Your task to perform on an android device: What's the weather going to be tomorrow? Image 0: 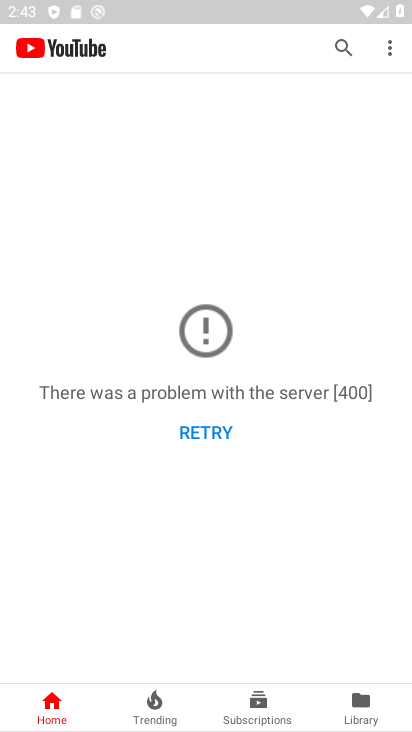
Step 0: press home button
Your task to perform on an android device: What's the weather going to be tomorrow? Image 1: 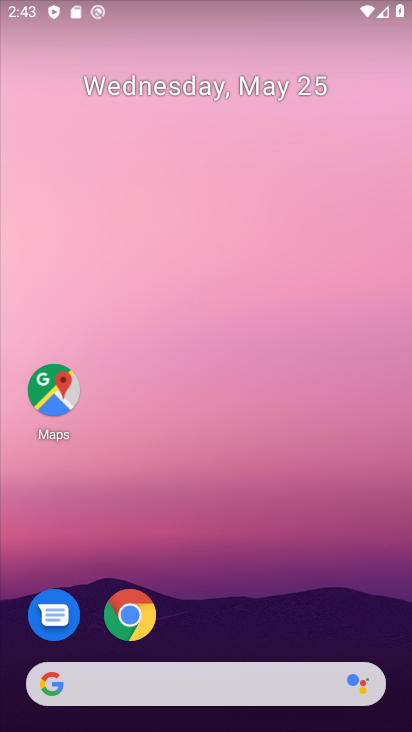
Step 1: drag from (2, 177) to (400, 188)
Your task to perform on an android device: What's the weather going to be tomorrow? Image 2: 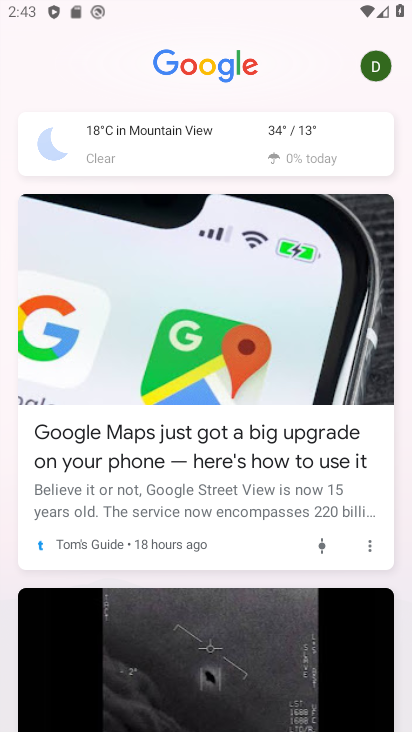
Step 2: click (280, 111)
Your task to perform on an android device: What's the weather going to be tomorrow? Image 3: 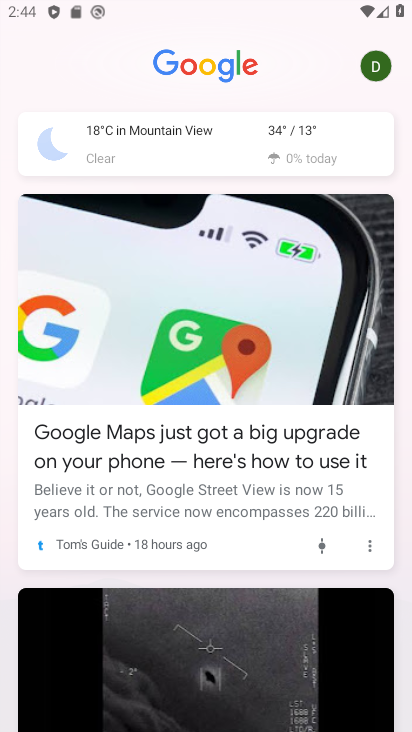
Step 3: click (288, 127)
Your task to perform on an android device: What's the weather going to be tomorrow? Image 4: 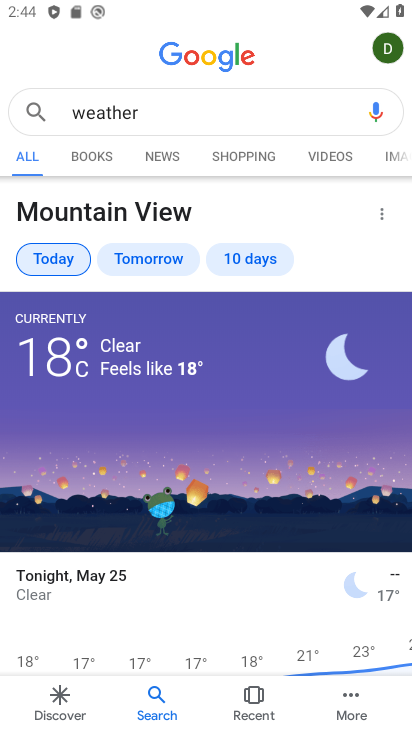
Step 4: click (145, 261)
Your task to perform on an android device: What's the weather going to be tomorrow? Image 5: 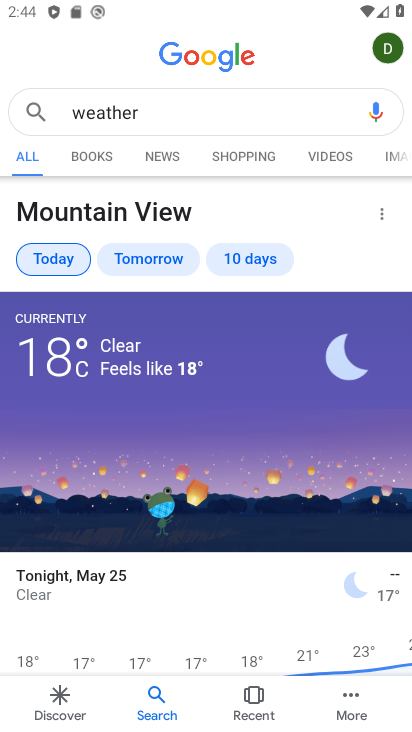
Step 5: click (145, 260)
Your task to perform on an android device: What's the weather going to be tomorrow? Image 6: 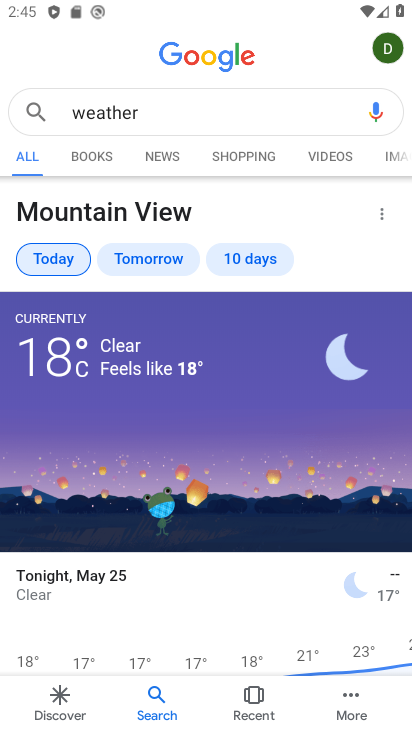
Step 6: click (144, 259)
Your task to perform on an android device: What's the weather going to be tomorrow? Image 7: 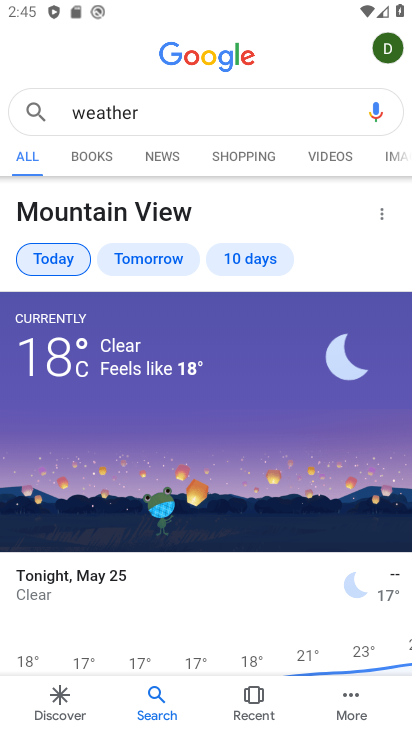
Step 7: click (221, 115)
Your task to perform on an android device: What's the weather going to be tomorrow? Image 8: 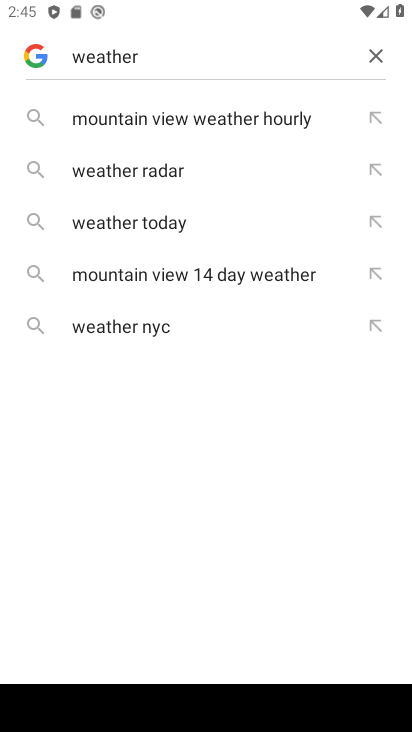
Step 8: type " tomorrow"
Your task to perform on an android device: What's the weather going to be tomorrow? Image 9: 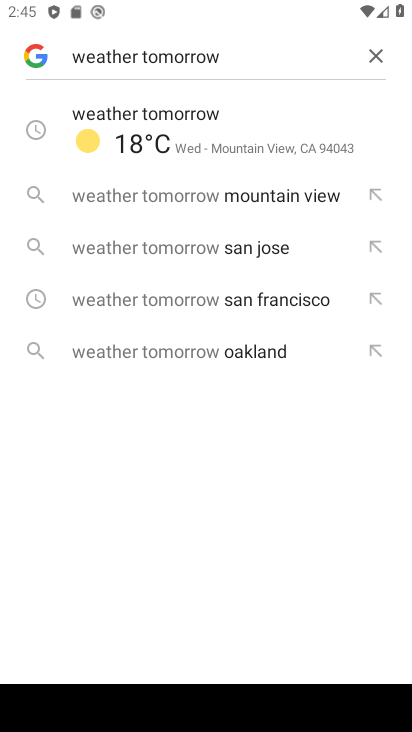
Step 9: click (240, 124)
Your task to perform on an android device: What's the weather going to be tomorrow? Image 10: 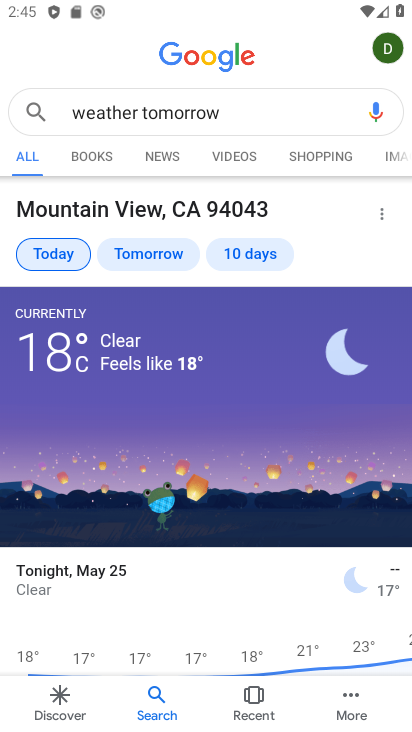
Step 10: task complete